Your task to perform on an android device: turn pop-ups on in chrome Image 0: 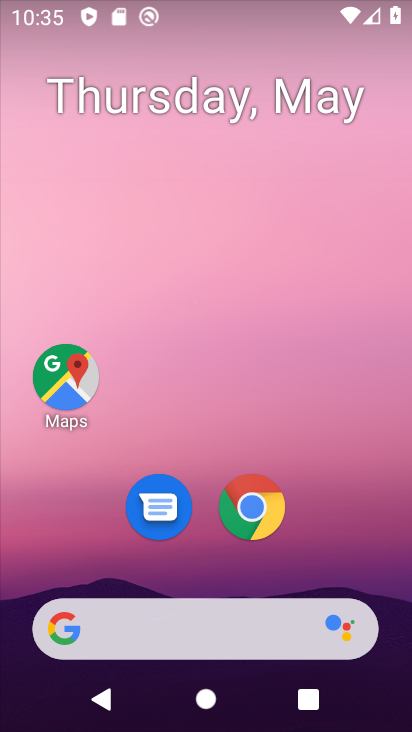
Step 0: drag from (312, 611) to (338, 123)
Your task to perform on an android device: turn pop-ups on in chrome Image 1: 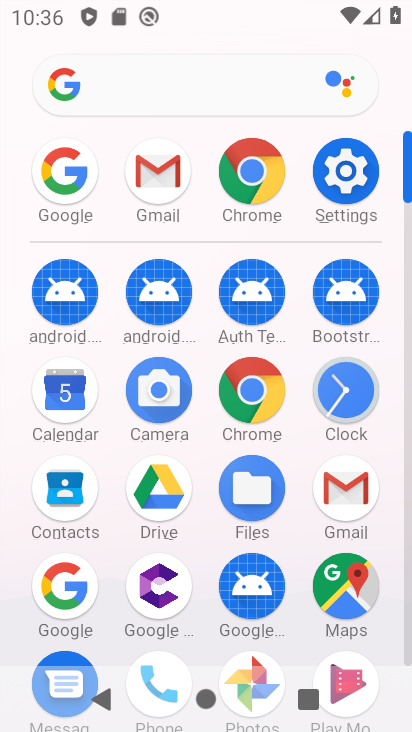
Step 1: click (256, 182)
Your task to perform on an android device: turn pop-ups on in chrome Image 2: 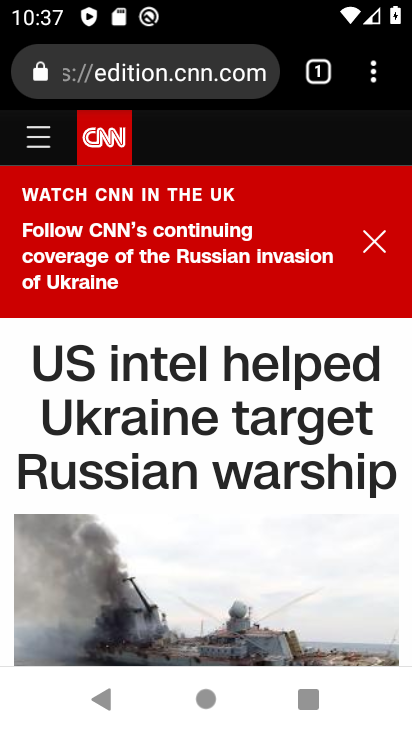
Step 2: click (372, 82)
Your task to perform on an android device: turn pop-ups on in chrome Image 3: 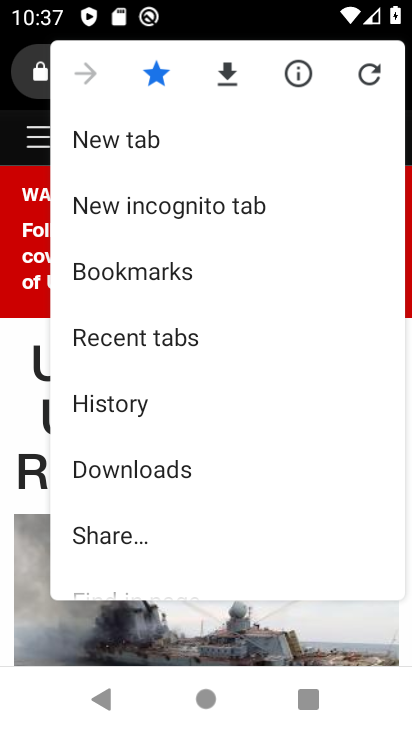
Step 3: drag from (343, 522) to (299, 241)
Your task to perform on an android device: turn pop-ups on in chrome Image 4: 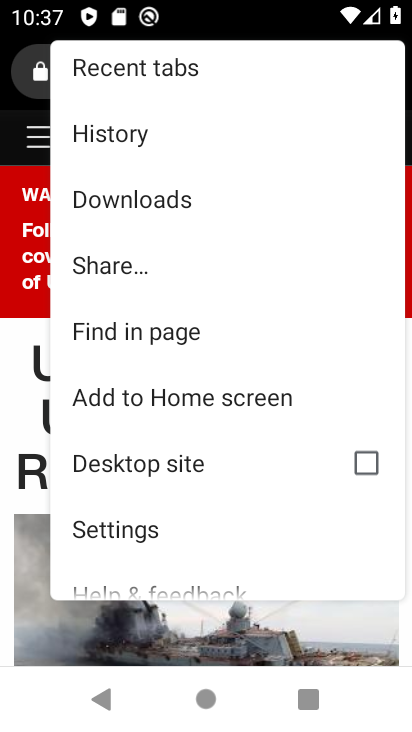
Step 4: click (205, 535)
Your task to perform on an android device: turn pop-ups on in chrome Image 5: 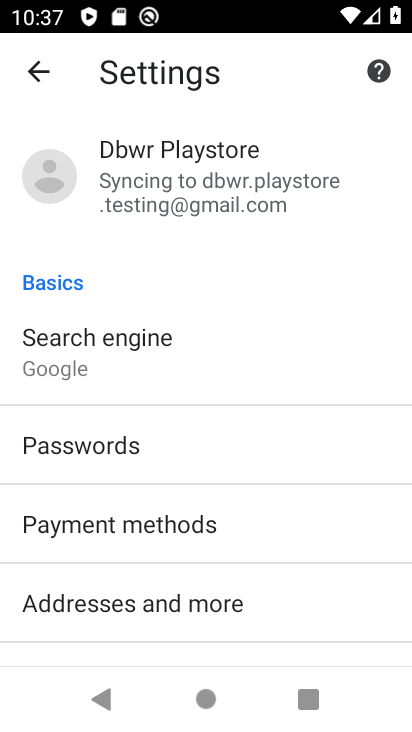
Step 5: drag from (190, 548) to (348, 67)
Your task to perform on an android device: turn pop-ups on in chrome Image 6: 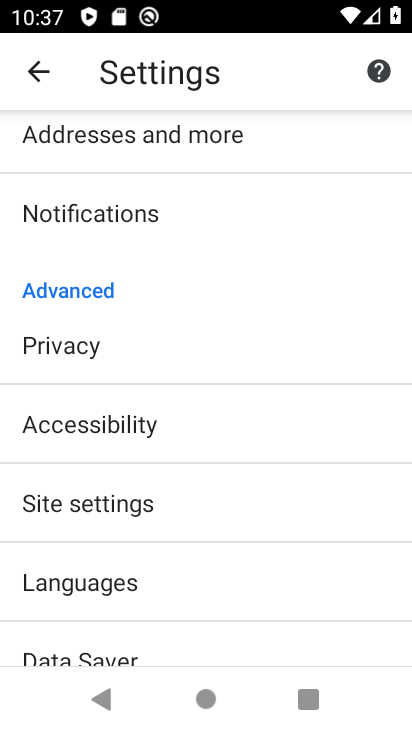
Step 6: click (176, 505)
Your task to perform on an android device: turn pop-ups on in chrome Image 7: 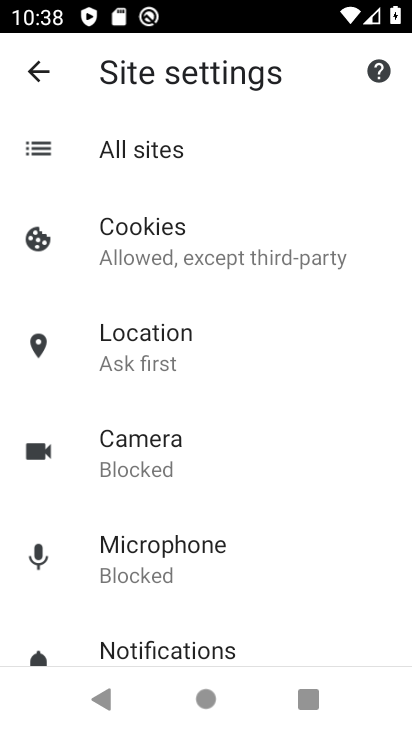
Step 7: drag from (174, 524) to (226, 230)
Your task to perform on an android device: turn pop-ups on in chrome Image 8: 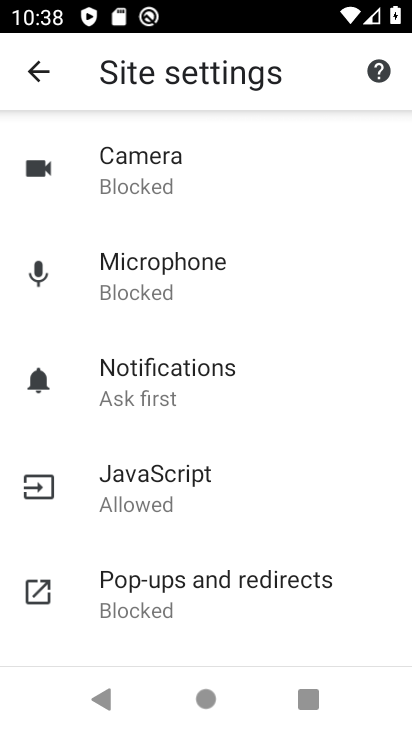
Step 8: click (194, 573)
Your task to perform on an android device: turn pop-ups on in chrome Image 9: 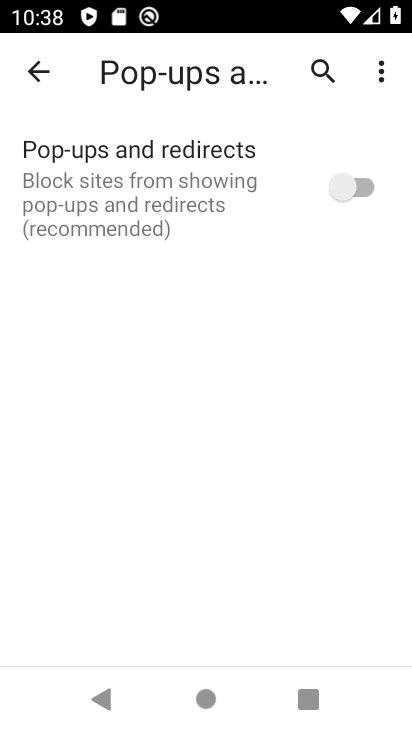
Step 9: click (353, 199)
Your task to perform on an android device: turn pop-ups on in chrome Image 10: 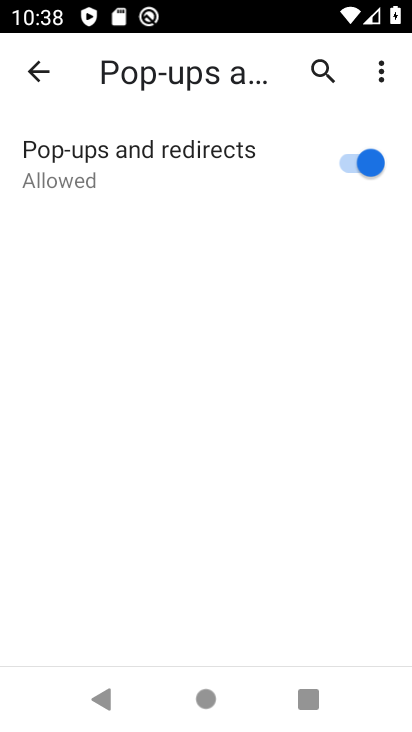
Step 10: task complete